Your task to perform on an android device: turn on data saver in the chrome app Image 0: 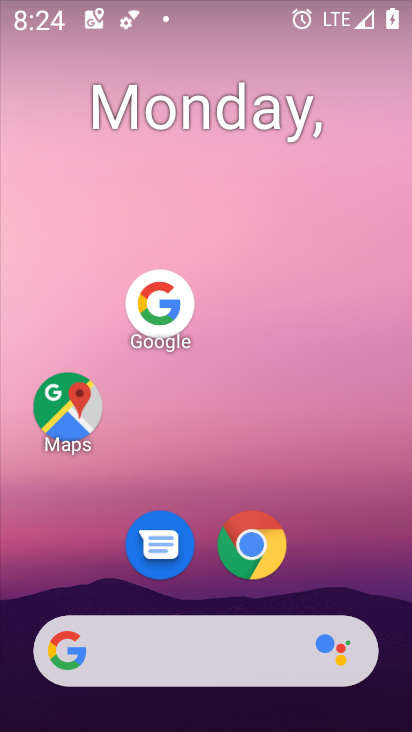
Step 0: press home button
Your task to perform on an android device: turn on data saver in the chrome app Image 1: 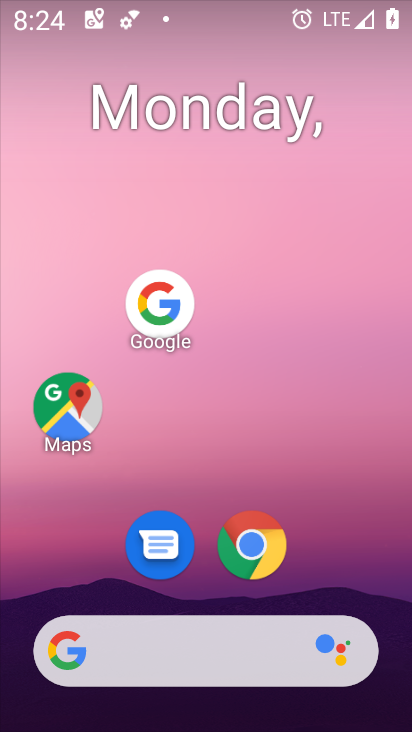
Step 1: click (245, 560)
Your task to perform on an android device: turn on data saver in the chrome app Image 2: 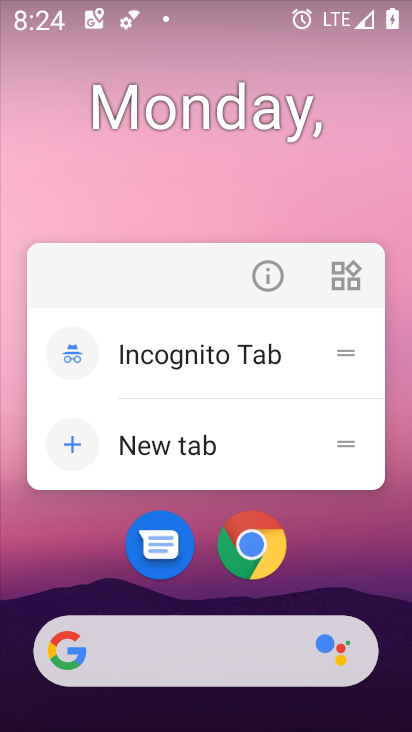
Step 2: click (255, 546)
Your task to perform on an android device: turn on data saver in the chrome app Image 3: 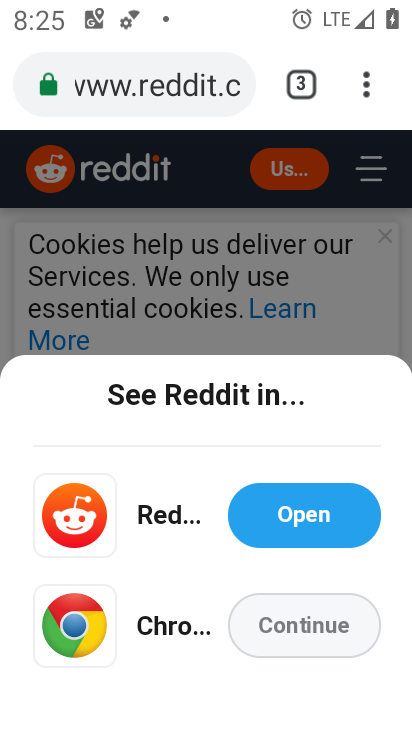
Step 3: drag from (363, 95) to (206, 611)
Your task to perform on an android device: turn on data saver in the chrome app Image 4: 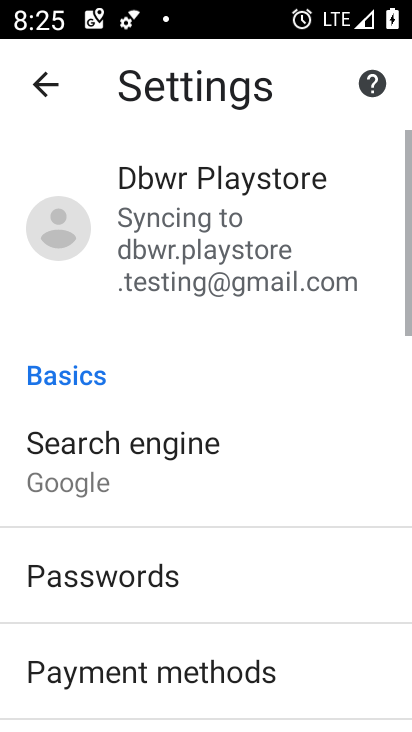
Step 4: drag from (186, 630) to (350, 128)
Your task to perform on an android device: turn on data saver in the chrome app Image 5: 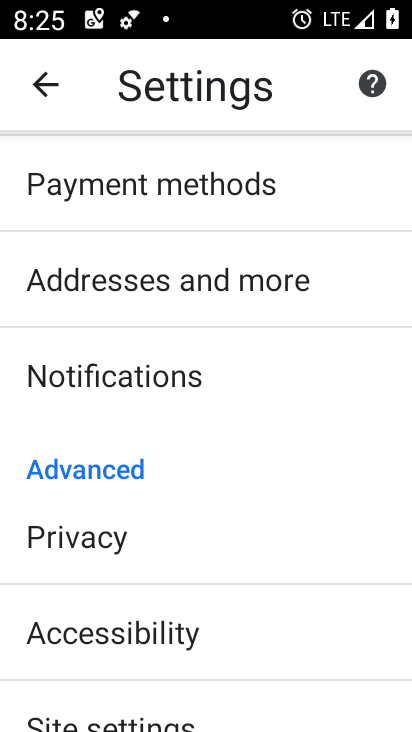
Step 5: drag from (225, 680) to (348, 192)
Your task to perform on an android device: turn on data saver in the chrome app Image 6: 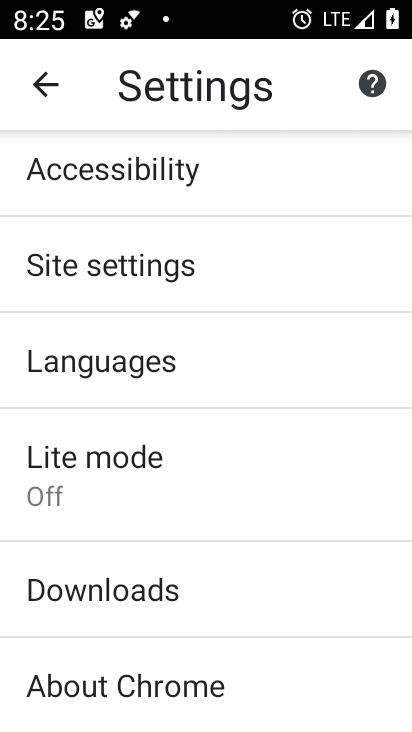
Step 6: click (91, 484)
Your task to perform on an android device: turn on data saver in the chrome app Image 7: 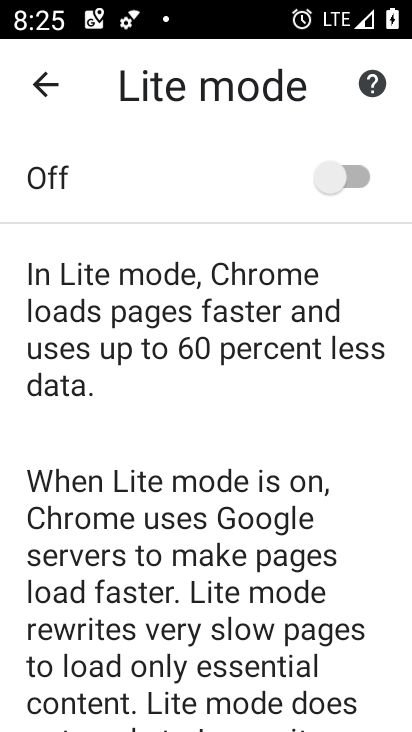
Step 7: click (360, 173)
Your task to perform on an android device: turn on data saver in the chrome app Image 8: 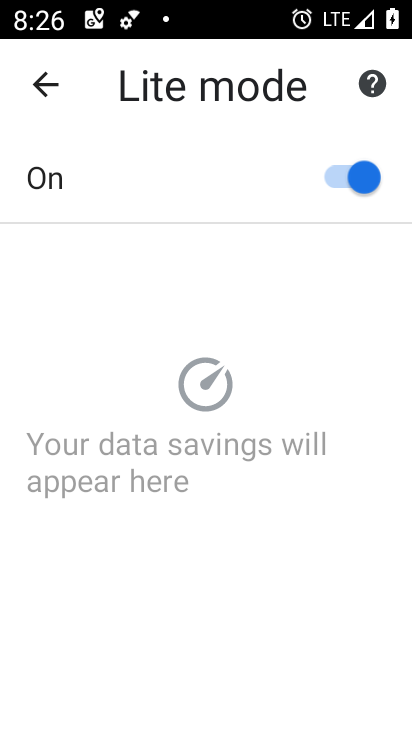
Step 8: task complete